Your task to perform on an android device: open app "Facebook Messenger" Image 0: 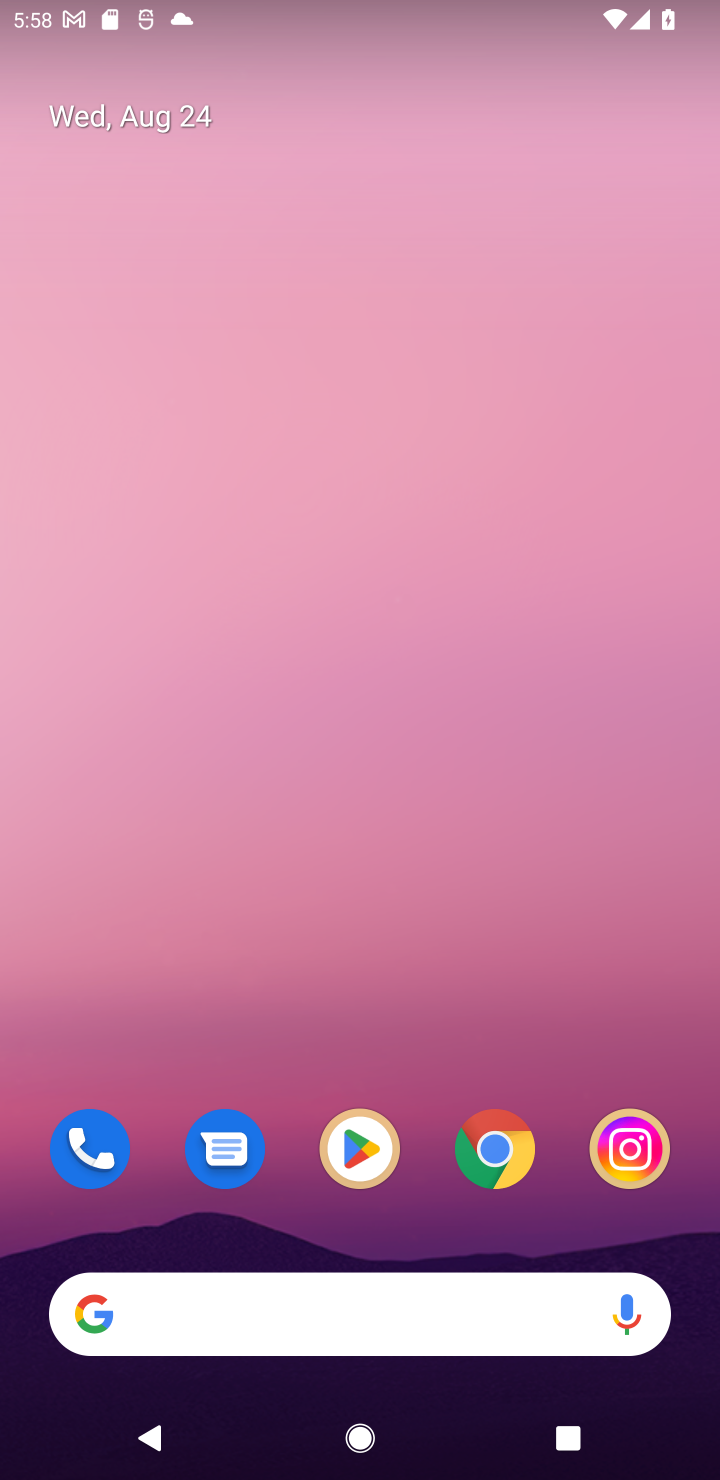
Step 0: press home button
Your task to perform on an android device: open app "Facebook Messenger" Image 1: 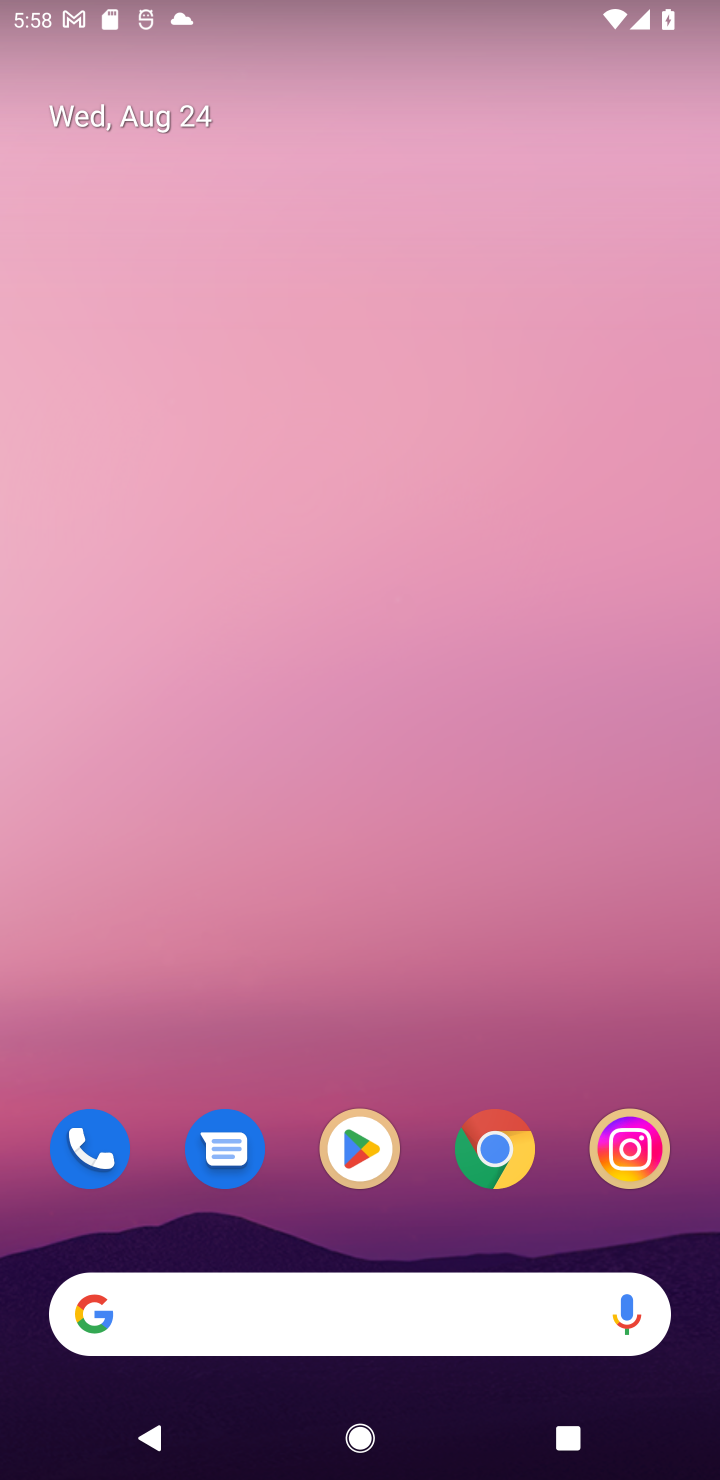
Step 1: click (342, 1149)
Your task to perform on an android device: open app "Facebook Messenger" Image 2: 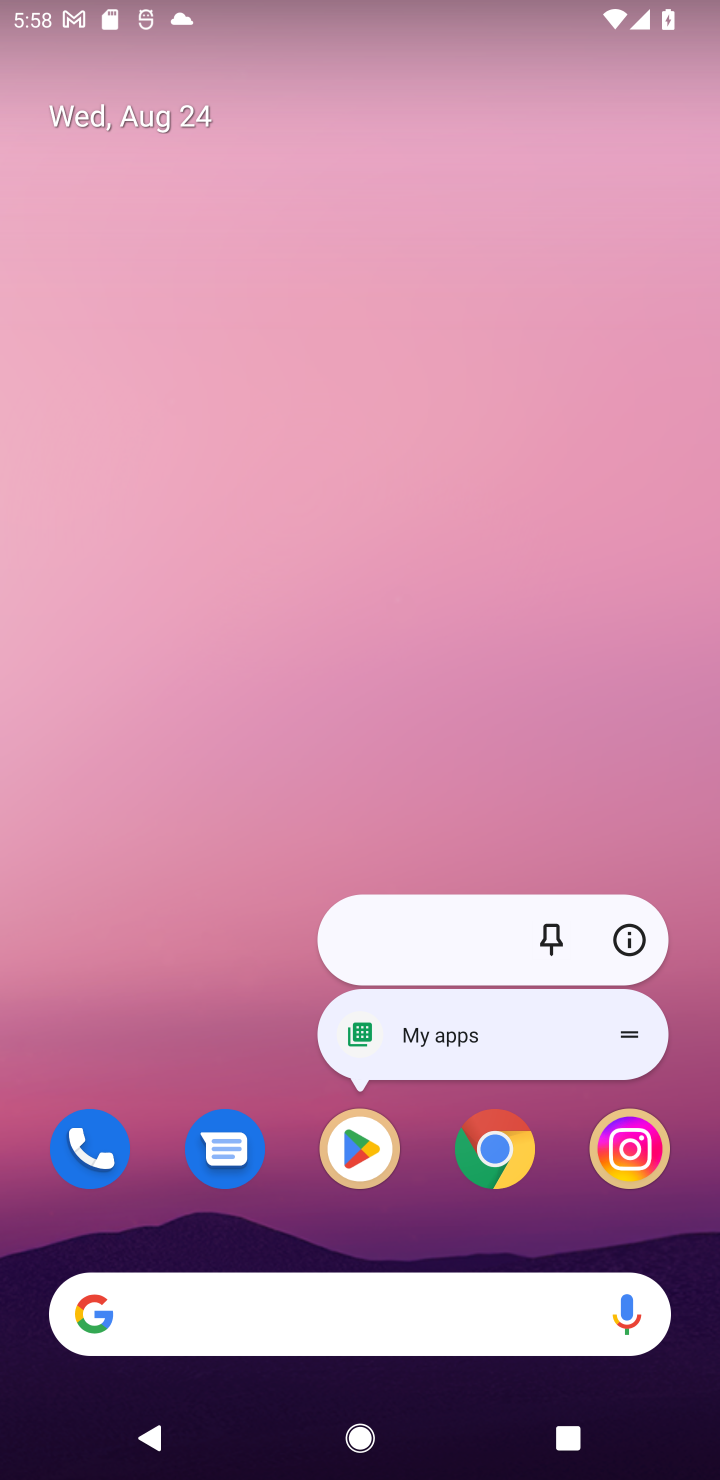
Step 2: click (342, 1152)
Your task to perform on an android device: open app "Facebook Messenger" Image 3: 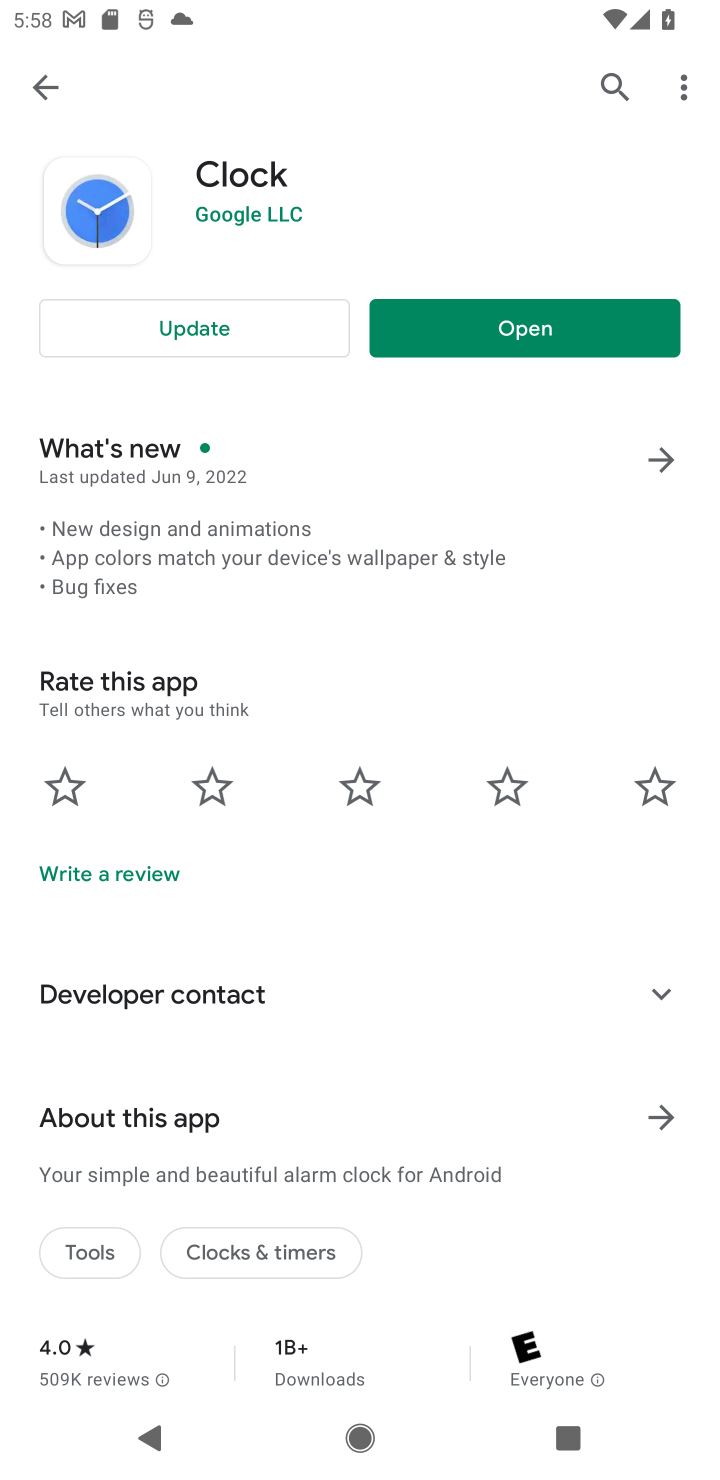
Step 3: click (610, 73)
Your task to perform on an android device: open app "Facebook Messenger" Image 4: 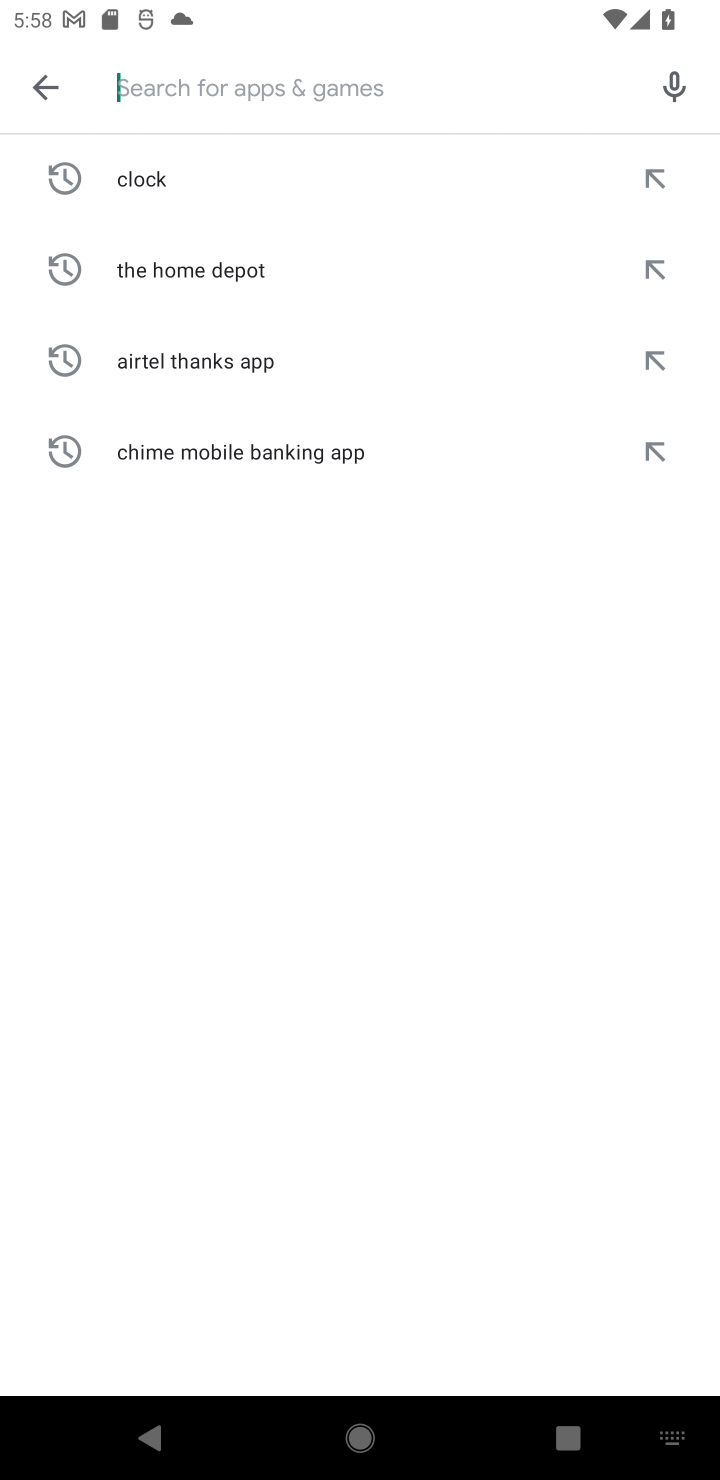
Step 4: type "Facebook Messenger"
Your task to perform on an android device: open app "Facebook Messenger" Image 5: 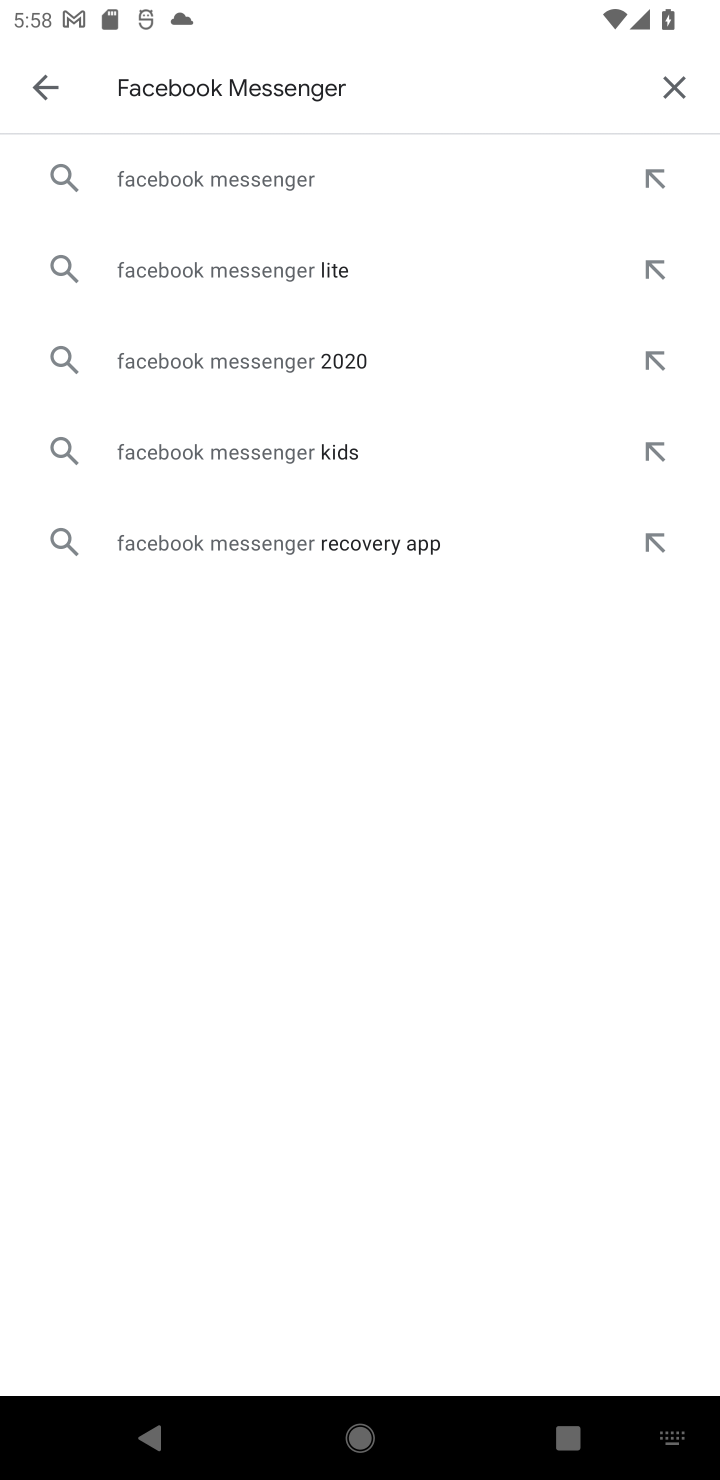
Step 5: click (282, 186)
Your task to perform on an android device: open app "Facebook Messenger" Image 6: 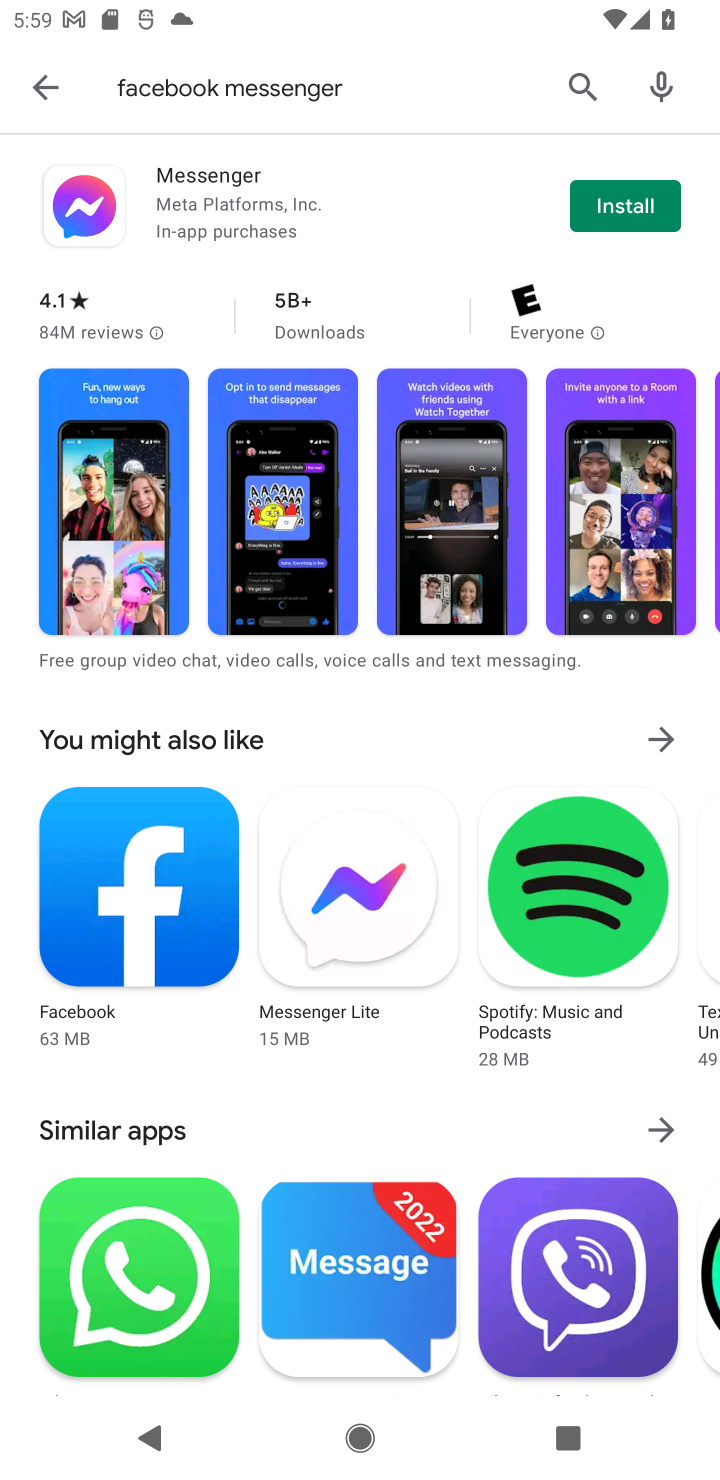
Step 6: task complete